Your task to perform on an android device: turn on location history Image 0: 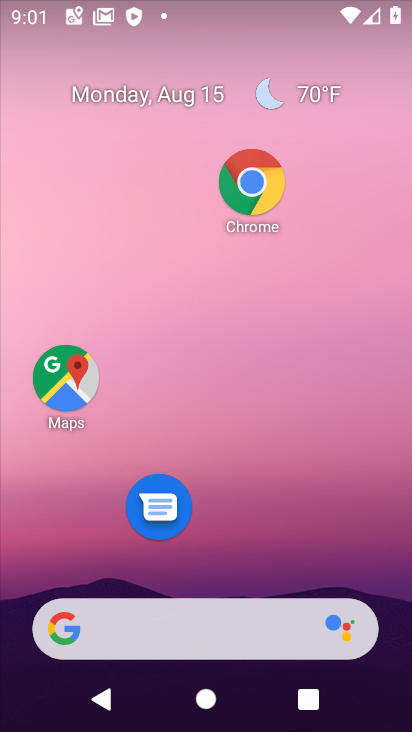
Step 0: drag from (241, 582) to (252, 176)
Your task to perform on an android device: turn on location history Image 1: 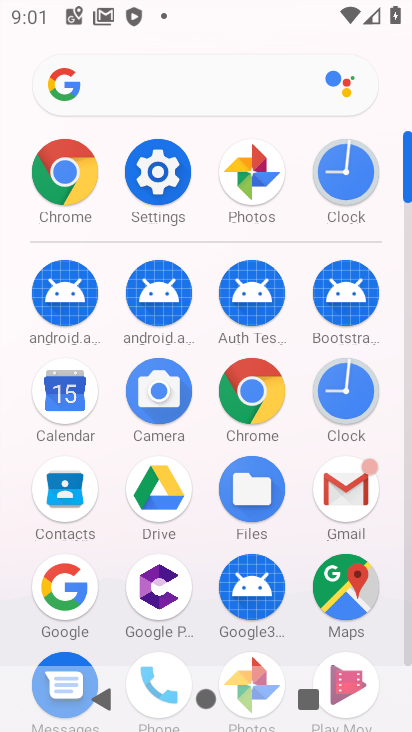
Step 1: click (403, 385)
Your task to perform on an android device: turn on location history Image 2: 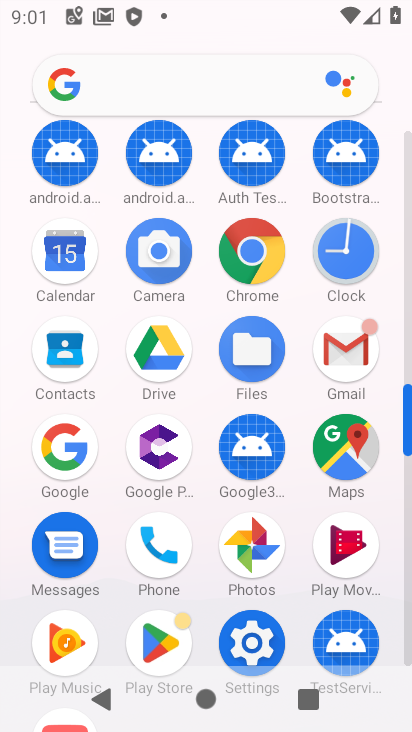
Step 2: click (260, 618)
Your task to perform on an android device: turn on location history Image 3: 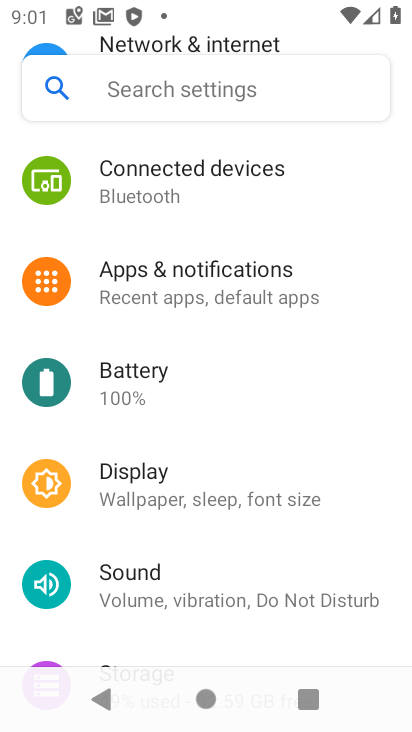
Step 3: drag from (170, 492) to (200, 176)
Your task to perform on an android device: turn on location history Image 4: 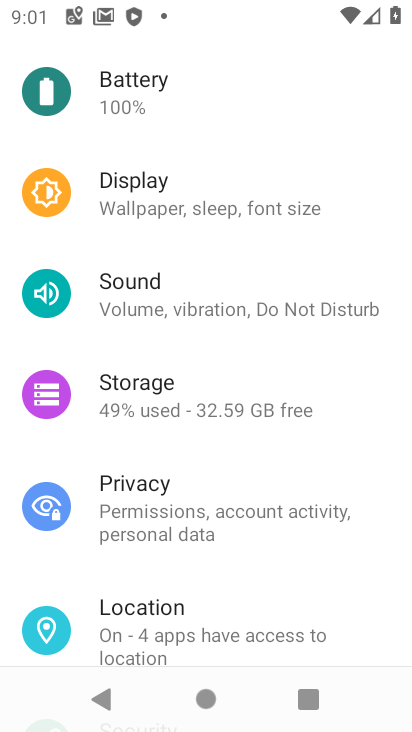
Step 4: click (199, 628)
Your task to perform on an android device: turn on location history Image 5: 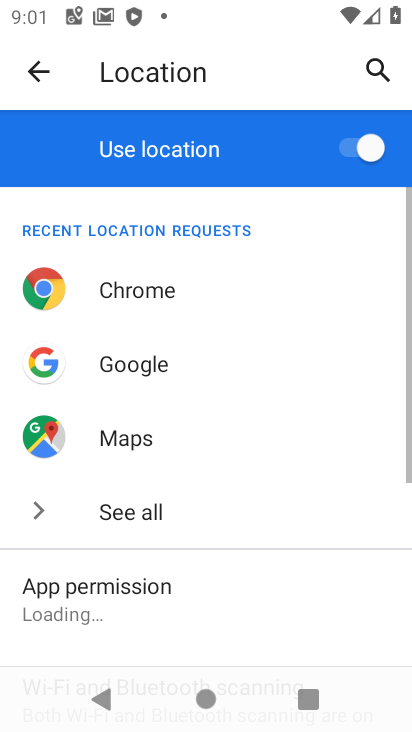
Step 5: task complete